Your task to perform on an android device: Go to network settings Image 0: 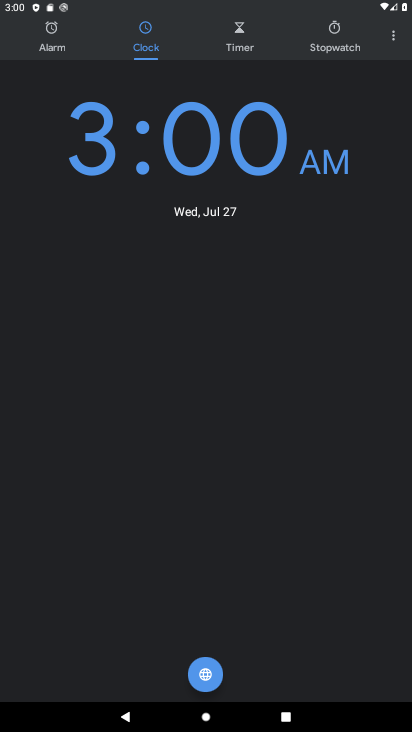
Step 0: press home button
Your task to perform on an android device: Go to network settings Image 1: 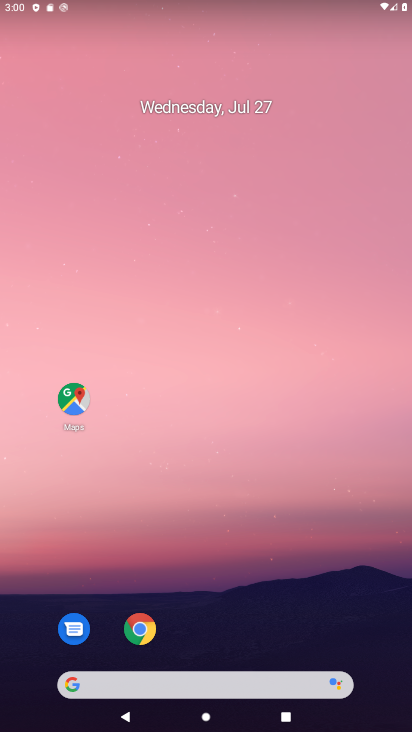
Step 1: drag from (228, 623) to (207, 4)
Your task to perform on an android device: Go to network settings Image 2: 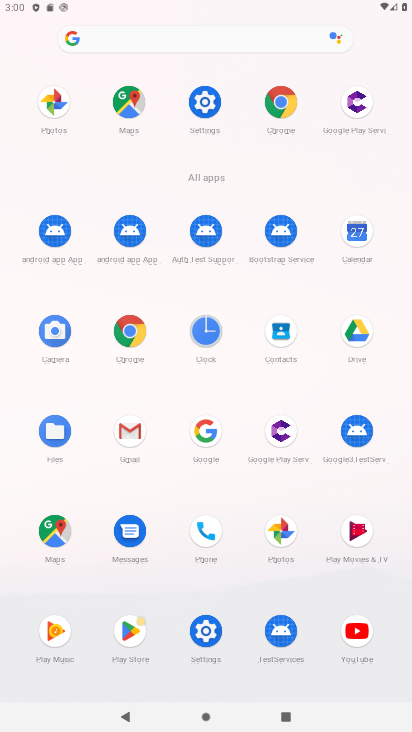
Step 2: click (205, 102)
Your task to perform on an android device: Go to network settings Image 3: 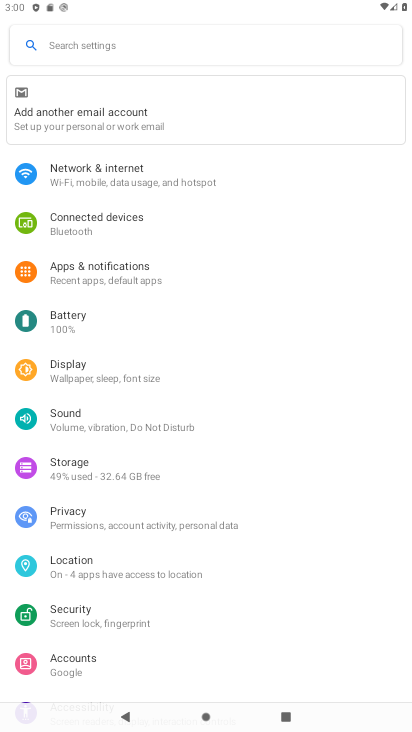
Step 3: click (110, 181)
Your task to perform on an android device: Go to network settings Image 4: 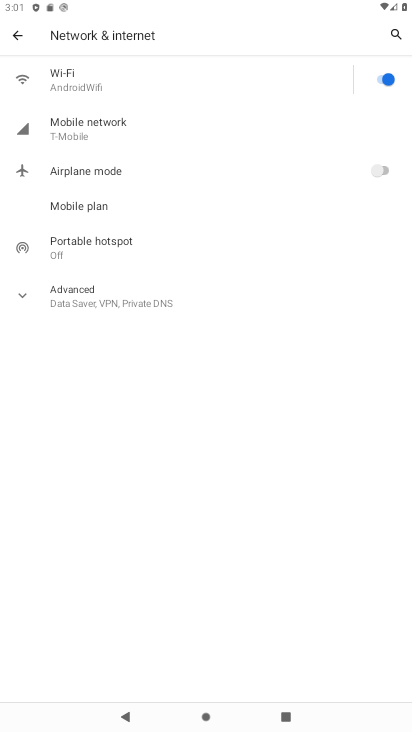
Step 4: click (21, 293)
Your task to perform on an android device: Go to network settings Image 5: 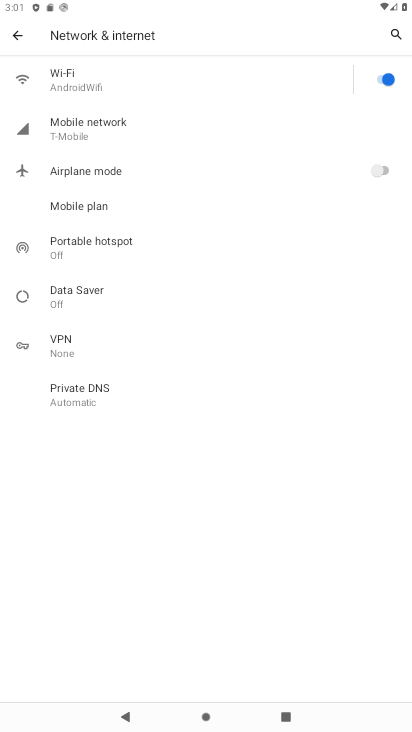
Step 5: task complete